Your task to perform on an android device: check battery use Image 0: 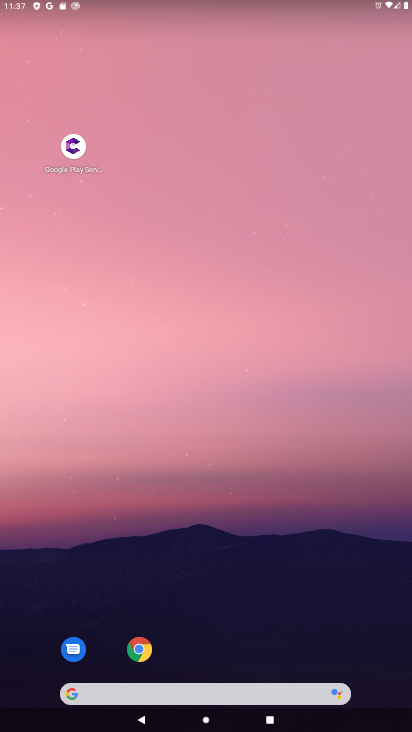
Step 0: drag from (303, 591) to (281, 0)
Your task to perform on an android device: check battery use Image 1: 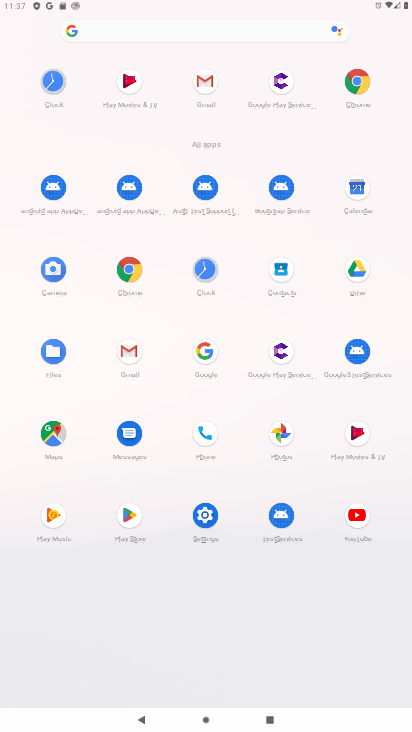
Step 1: click (207, 508)
Your task to perform on an android device: check battery use Image 2: 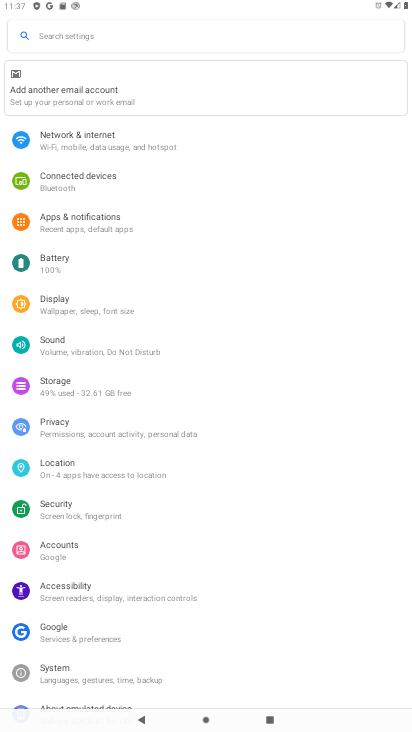
Step 2: click (67, 260)
Your task to perform on an android device: check battery use Image 3: 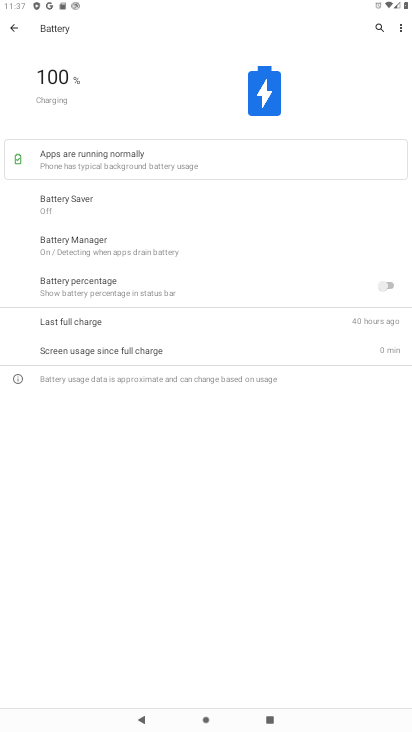
Step 3: click (403, 24)
Your task to perform on an android device: check battery use Image 4: 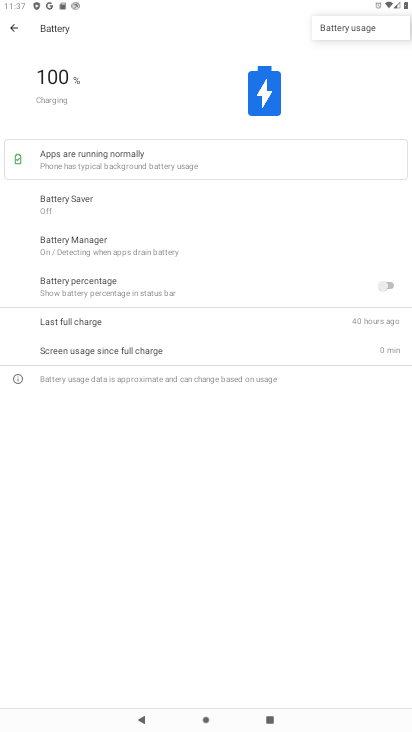
Step 4: click (372, 34)
Your task to perform on an android device: check battery use Image 5: 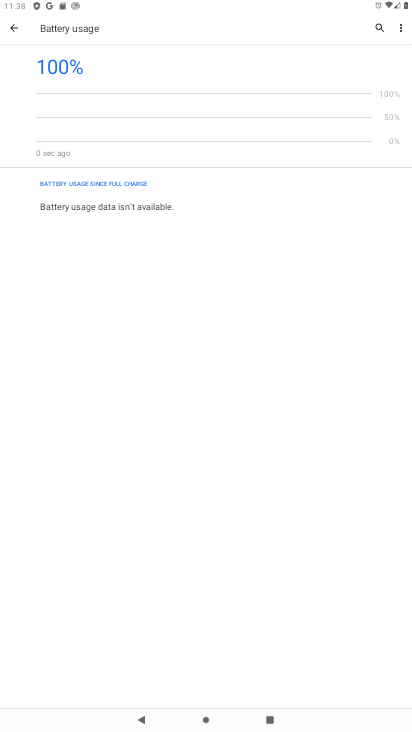
Step 5: task complete